Your task to perform on an android device: turn on sleep mode Image 0: 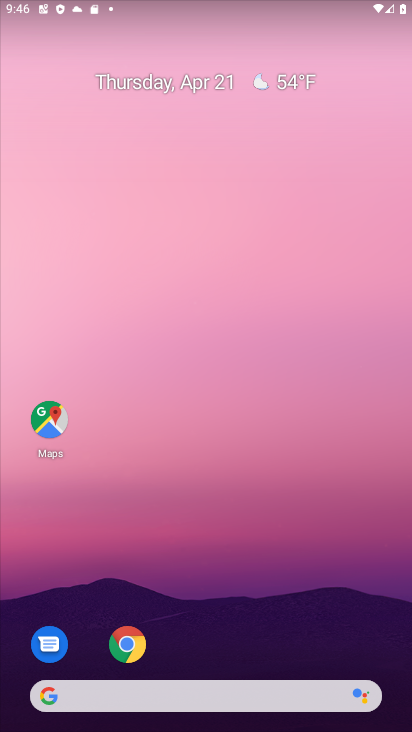
Step 0: drag from (215, 434) to (138, 152)
Your task to perform on an android device: turn on sleep mode Image 1: 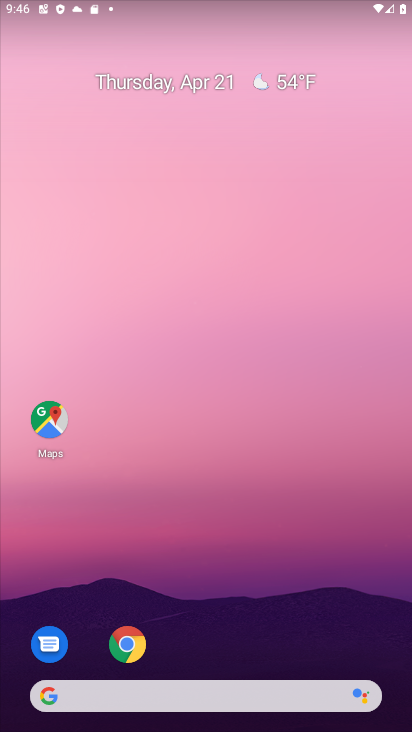
Step 1: drag from (183, 630) to (68, 56)
Your task to perform on an android device: turn on sleep mode Image 2: 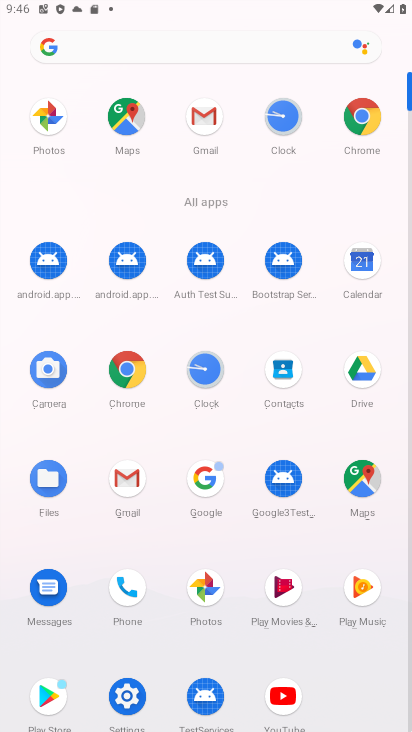
Step 2: click (128, 695)
Your task to perform on an android device: turn on sleep mode Image 3: 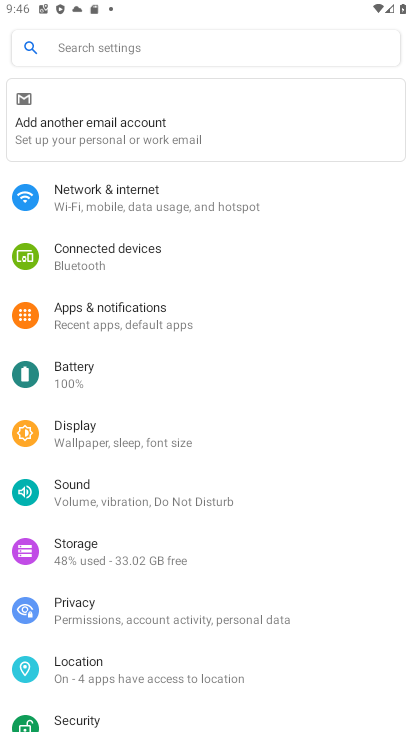
Step 3: click (158, 438)
Your task to perform on an android device: turn on sleep mode Image 4: 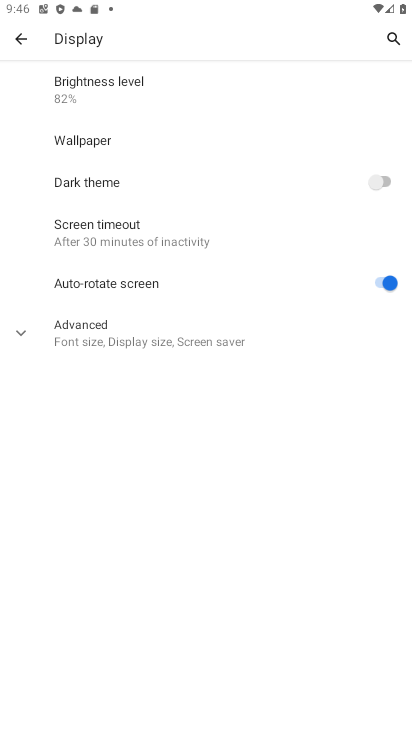
Step 4: click (81, 324)
Your task to perform on an android device: turn on sleep mode Image 5: 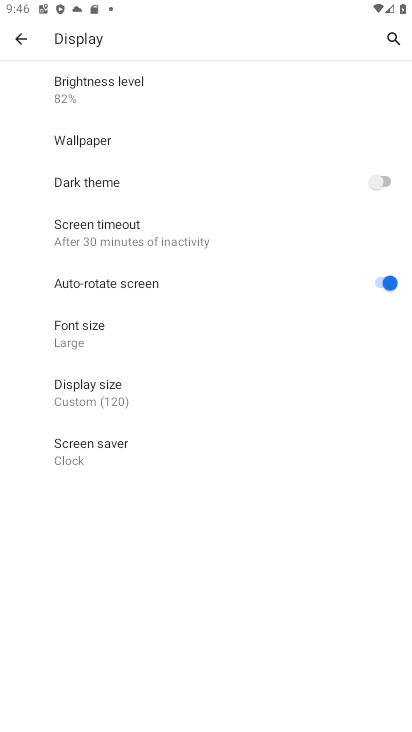
Step 5: task complete